Your task to perform on an android device: Go to internet settings Image 0: 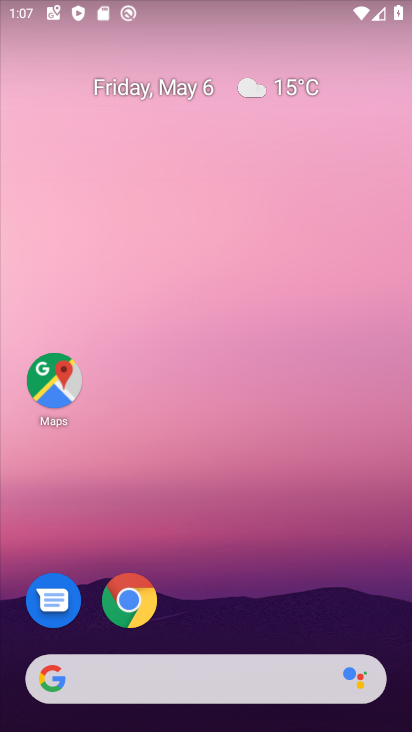
Step 0: drag from (346, 618) to (266, 49)
Your task to perform on an android device: Go to internet settings Image 1: 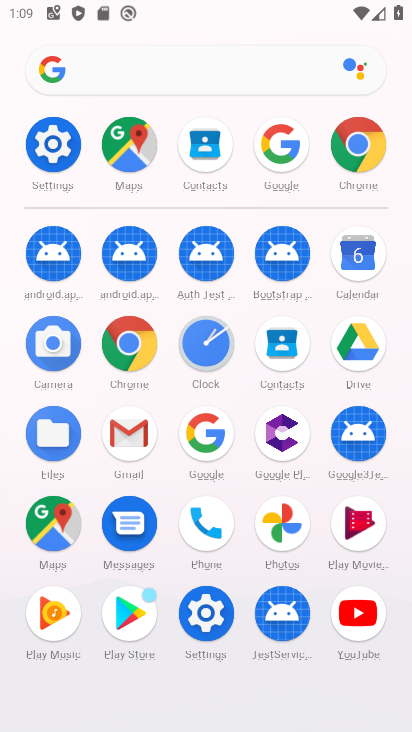
Step 1: click (204, 623)
Your task to perform on an android device: Go to internet settings Image 2: 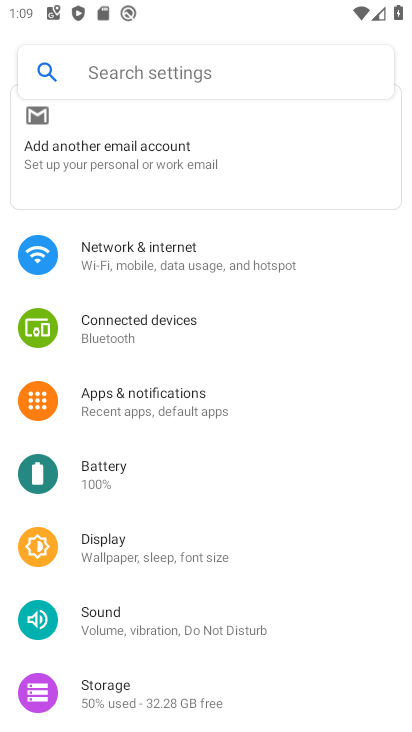
Step 2: click (178, 255)
Your task to perform on an android device: Go to internet settings Image 3: 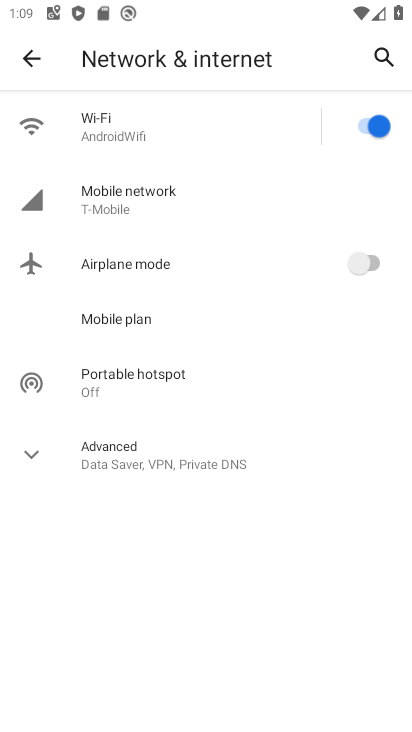
Step 3: task complete